Your task to perform on an android device: delete browsing data in the chrome app Image 0: 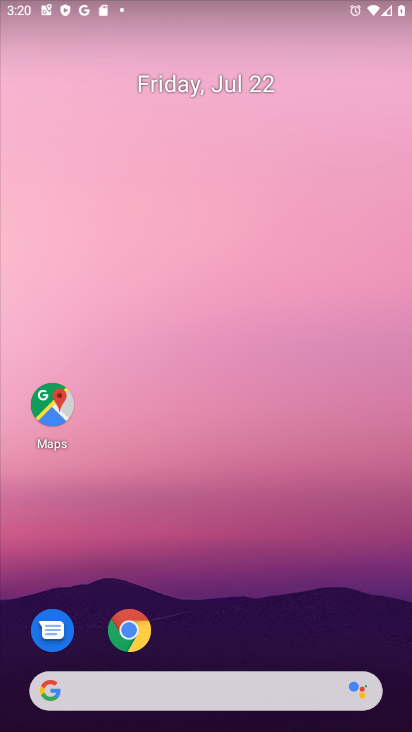
Step 0: click (142, 625)
Your task to perform on an android device: delete browsing data in the chrome app Image 1: 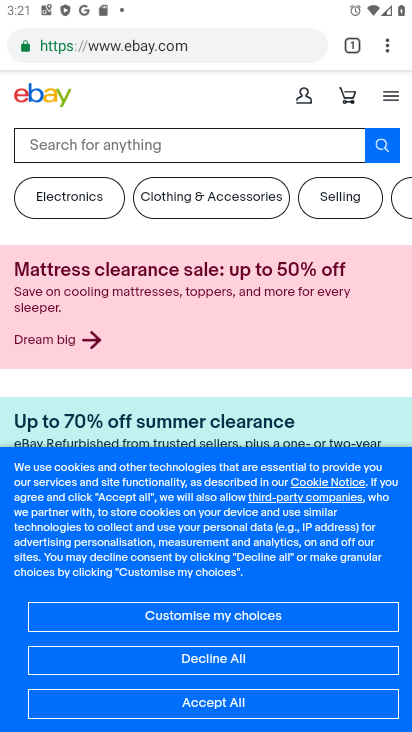
Step 1: click (379, 52)
Your task to perform on an android device: delete browsing data in the chrome app Image 2: 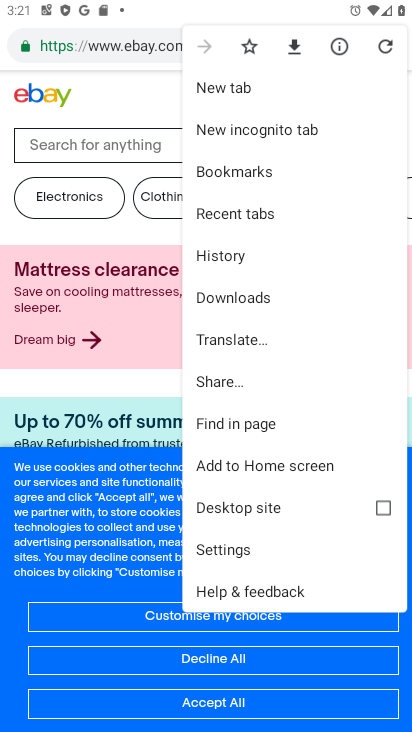
Step 2: click (230, 250)
Your task to perform on an android device: delete browsing data in the chrome app Image 3: 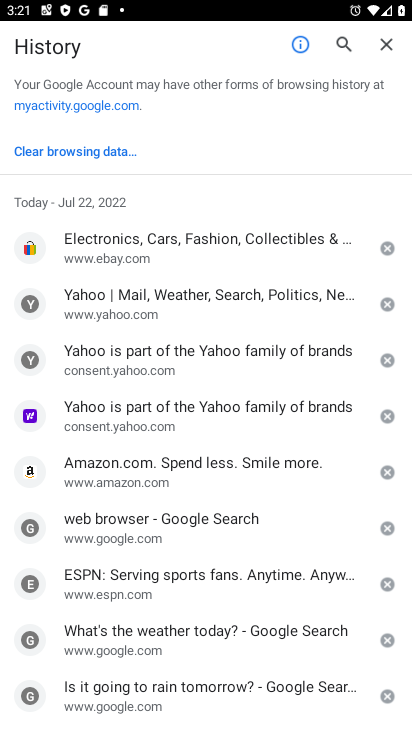
Step 3: click (89, 150)
Your task to perform on an android device: delete browsing data in the chrome app Image 4: 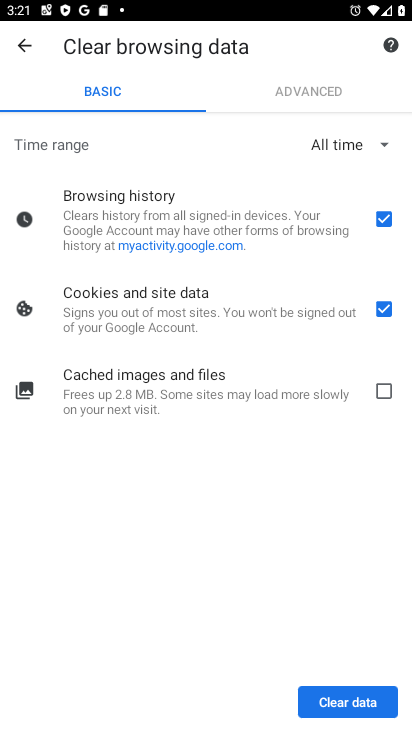
Step 4: click (335, 692)
Your task to perform on an android device: delete browsing data in the chrome app Image 5: 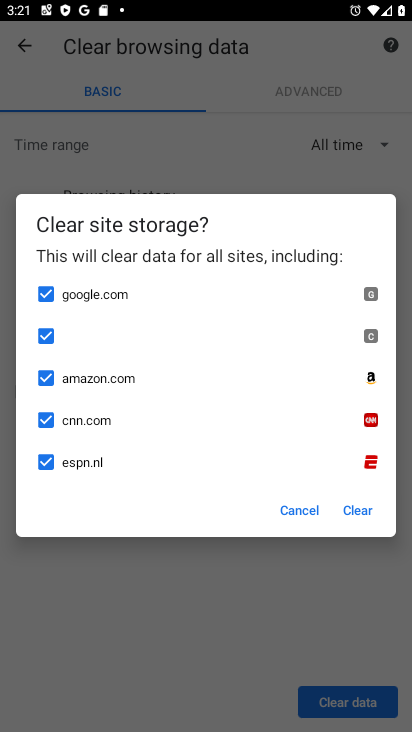
Step 5: click (344, 506)
Your task to perform on an android device: delete browsing data in the chrome app Image 6: 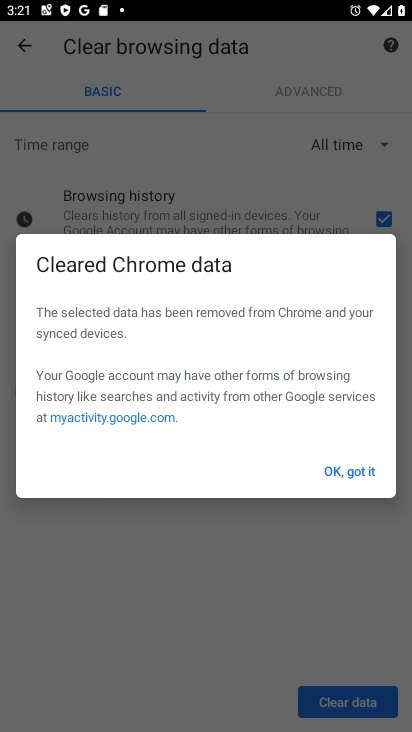
Step 6: click (348, 463)
Your task to perform on an android device: delete browsing data in the chrome app Image 7: 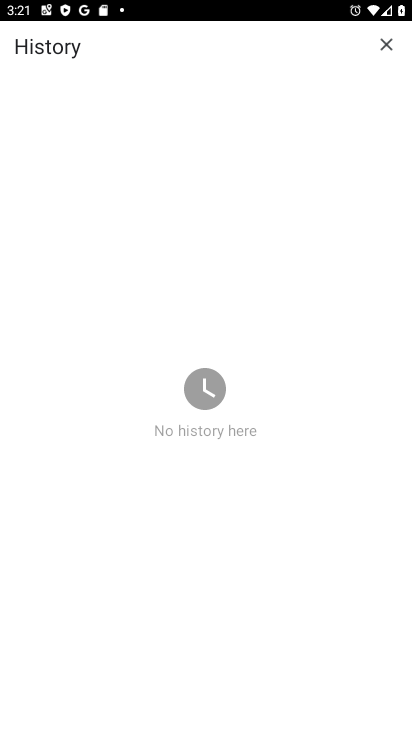
Step 7: task complete